Your task to perform on an android device: Go to Maps Image 0: 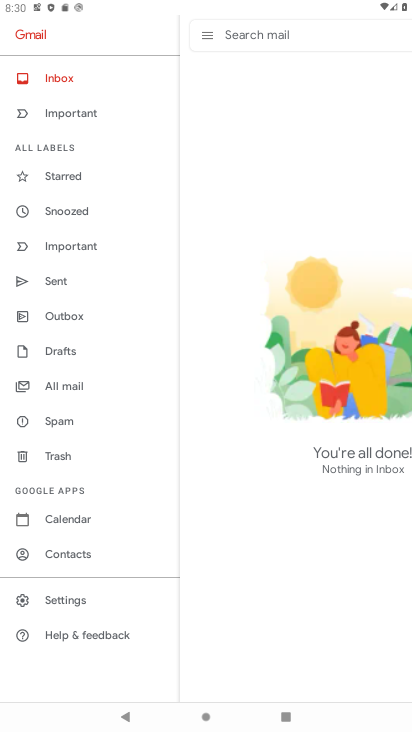
Step 0: press home button
Your task to perform on an android device: Go to Maps Image 1: 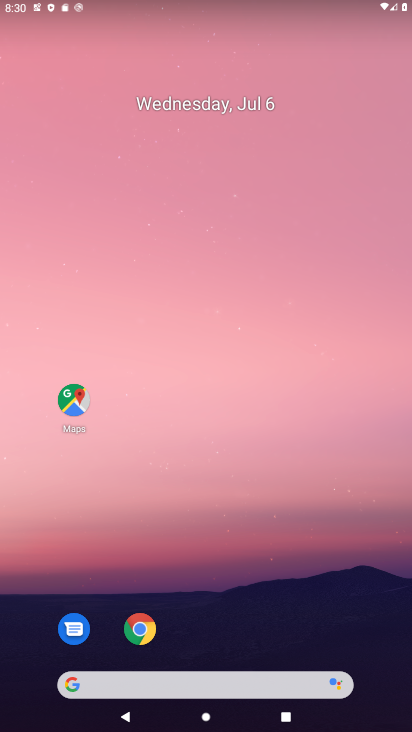
Step 1: drag from (243, 696) to (224, 89)
Your task to perform on an android device: Go to Maps Image 2: 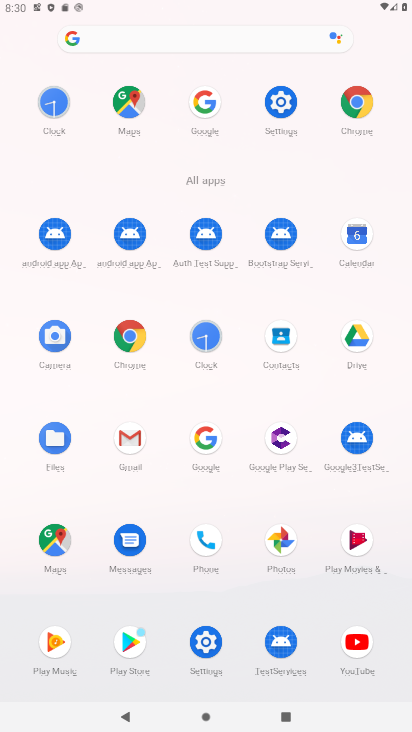
Step 2: click (50, 540)
Your task to perform on an android device: Go to Maps Image 3: 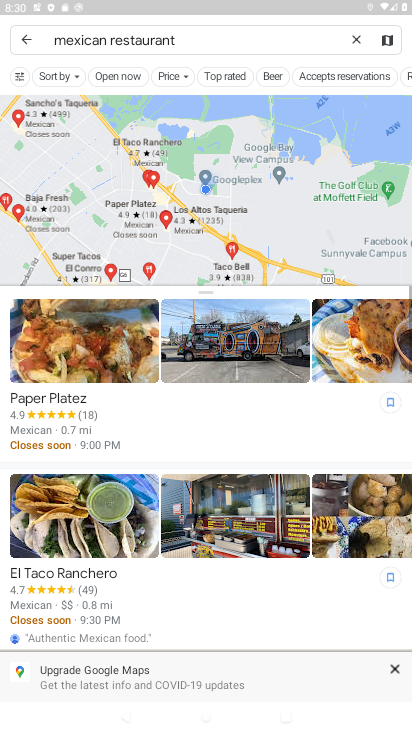
Step 3: task complete